Your task to perform on an android device: Search for "acer nitro" on walmart, select the first entry, and add it to the cart. Image 0: 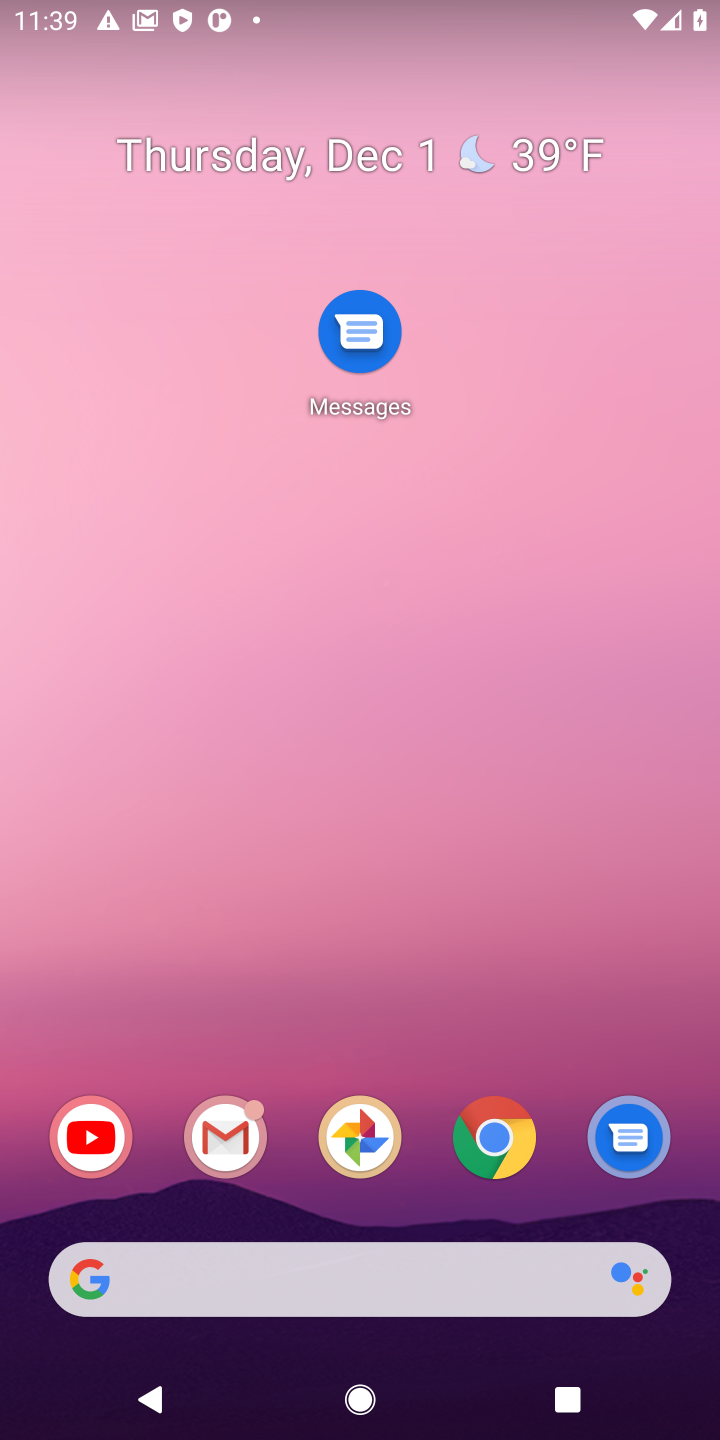
Step 0: drag from (258, 863) to (305, 542)
Your task to perform on an android device: Search for "acer nitro" on walmart, select the first entry, and add it to the cart. Image 1: 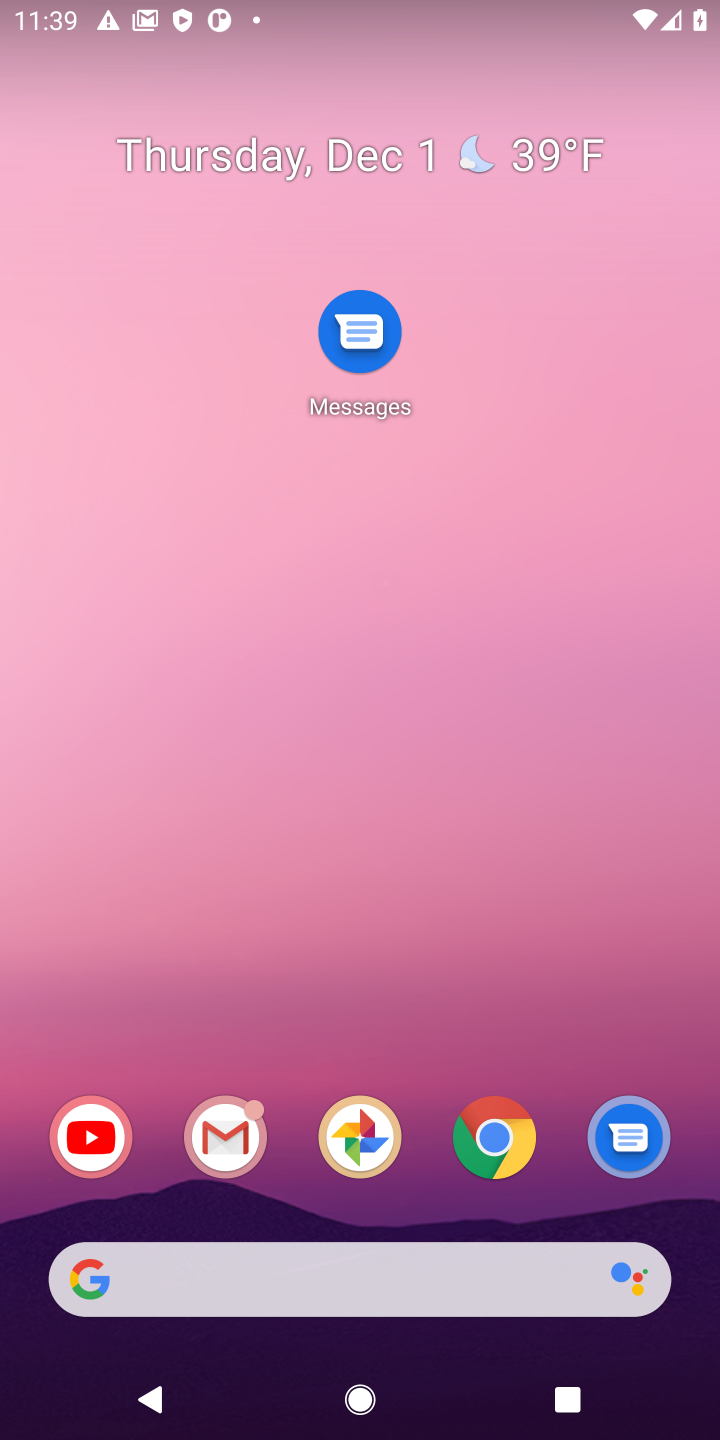
Step 1: drag from (392, 1133) to (392, 208)
Your task to perform on an android device: Search for "acer nitro" on walmart, select the first entry, and add it to the cart. Image 2: 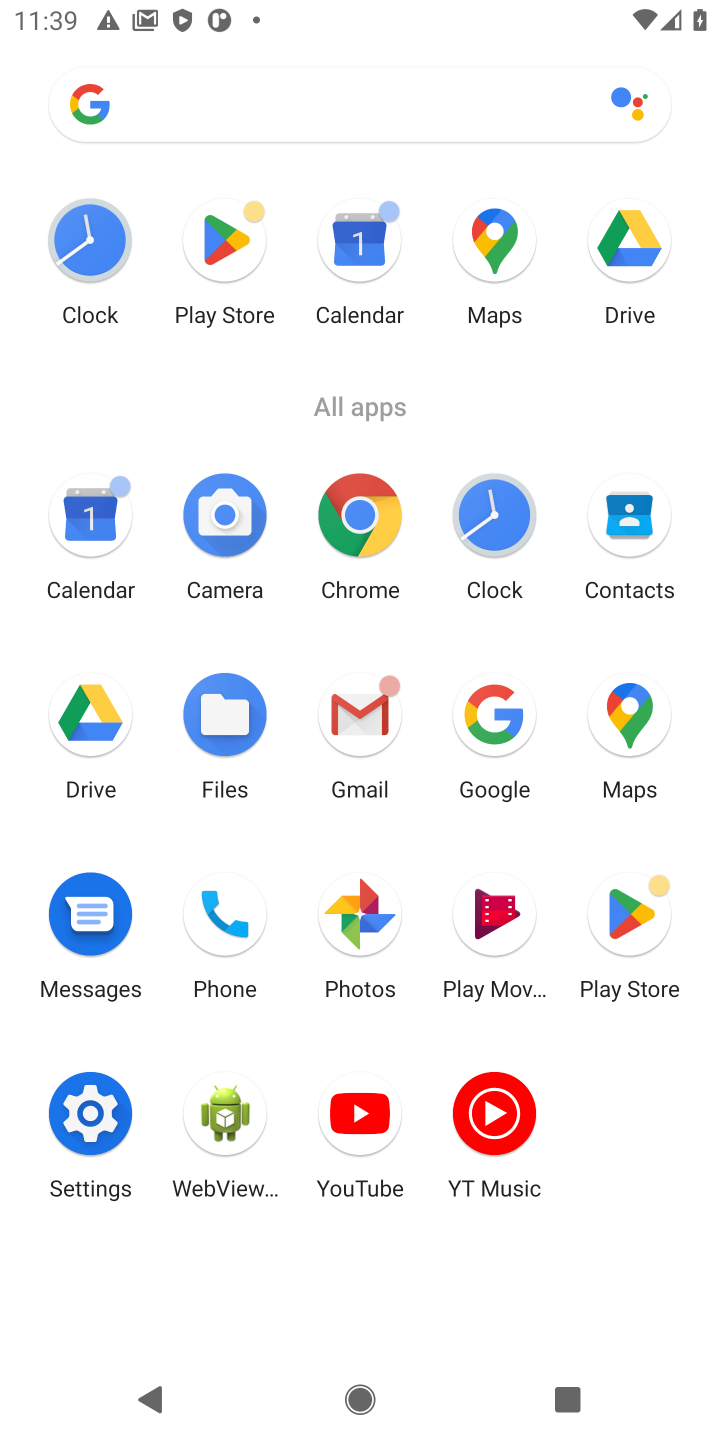
Step 2: click (498, 711)
Your task to perform on an android device: Search for "acer nitro" on walmart, select the first entry, and add it to the cart. Image 3: 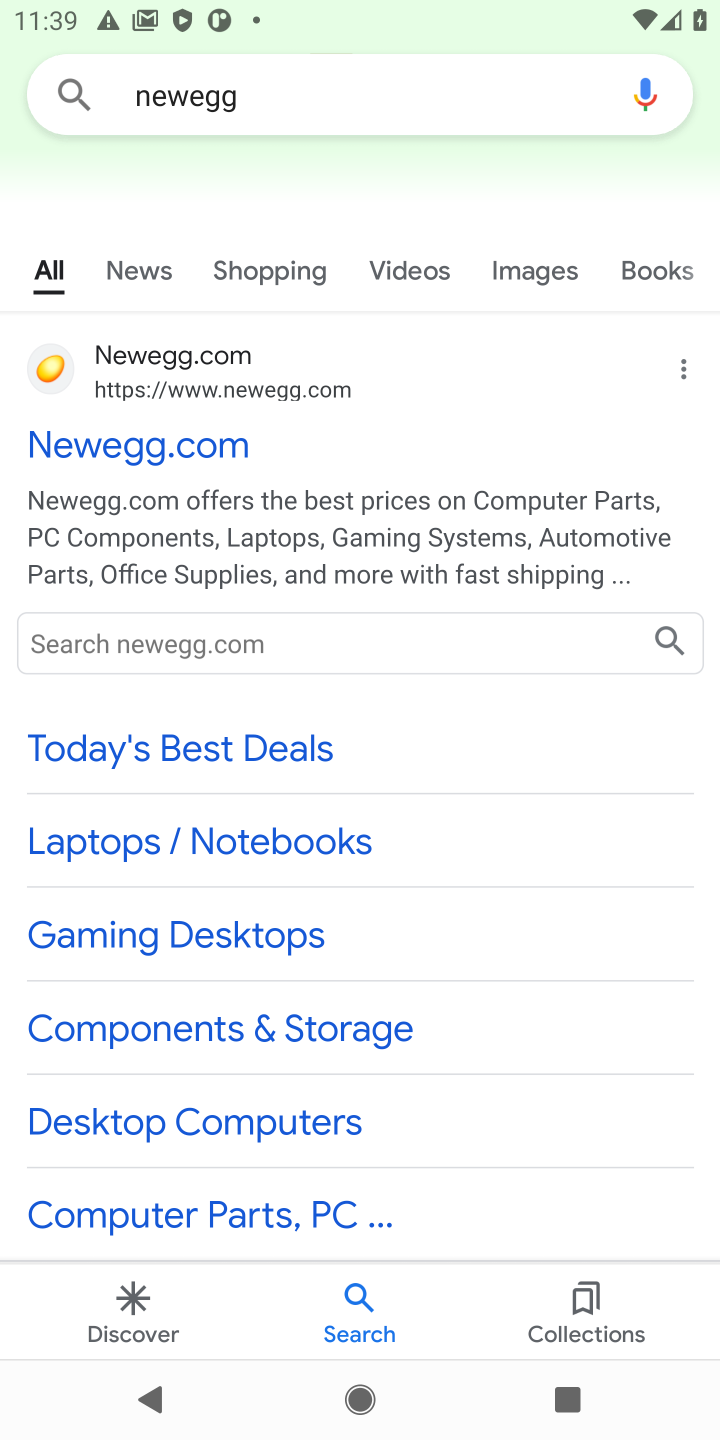
Step 3: click (242, 85)
Your task to perform on an android device: Search for "acer nitro" on walmart, select the first entry, and add it to the cart. Image 4: 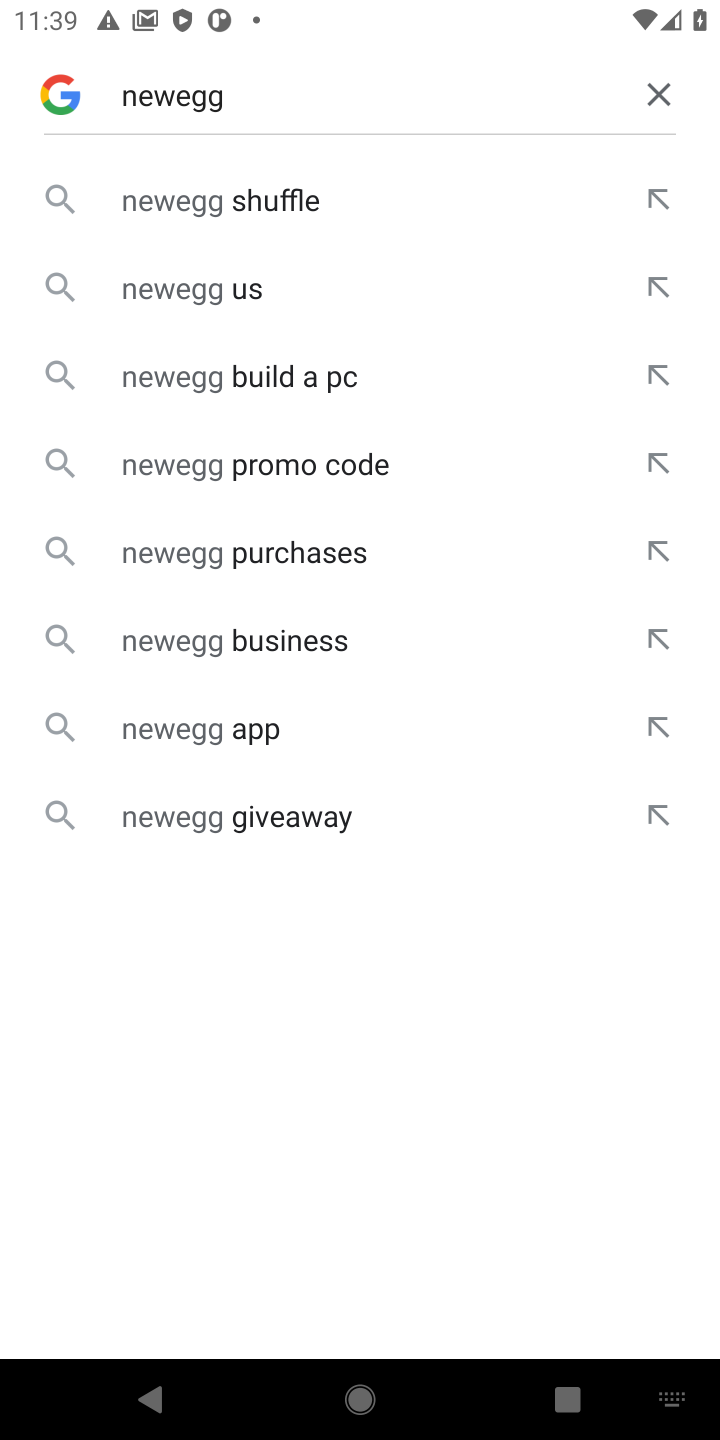
Step 4: click (666, 88)
Your task to perform on an android device: Search for "acer nitro" on walmart, select the first entry, and add it to the cart. Image 5: 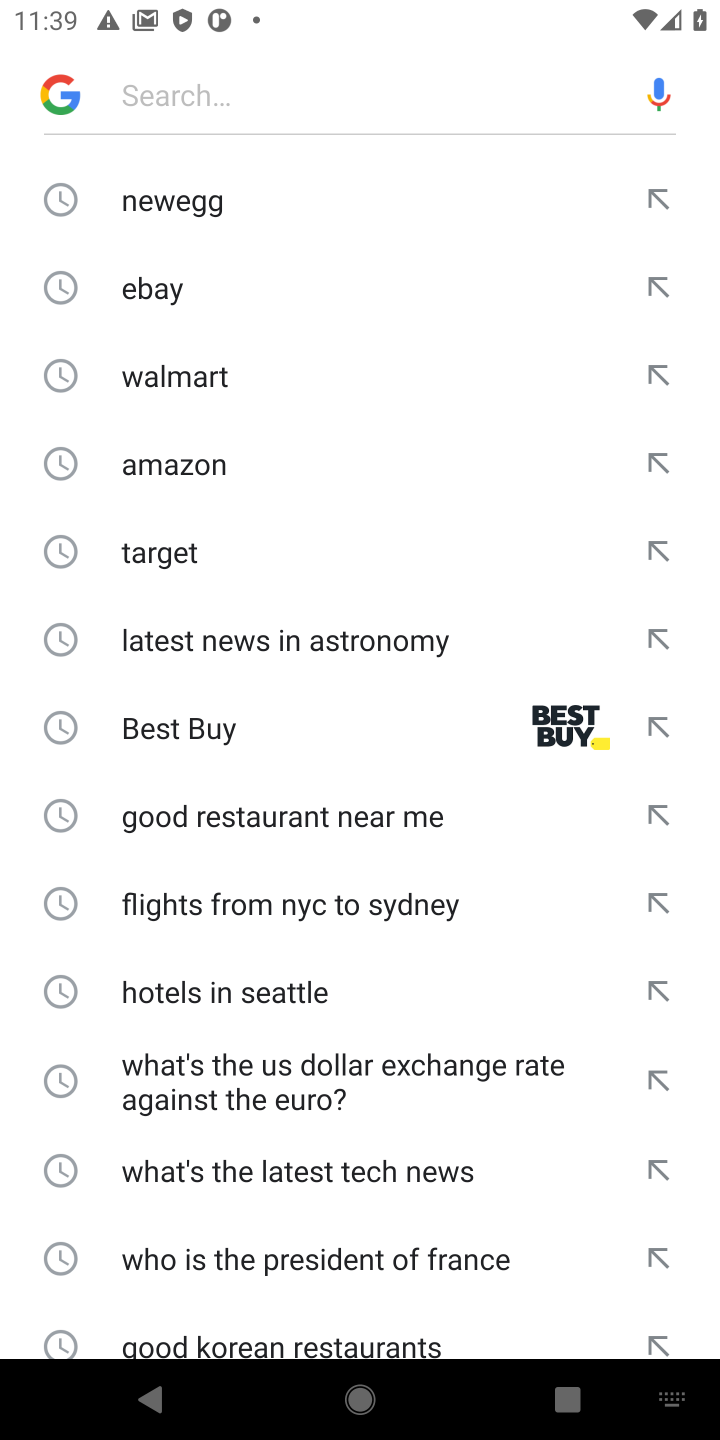
Step 5: click (183, 384)
Your task to perform on an android device: Search for "acer nitro" on walmart, select the first entry, and add it to the cart. Image 6: 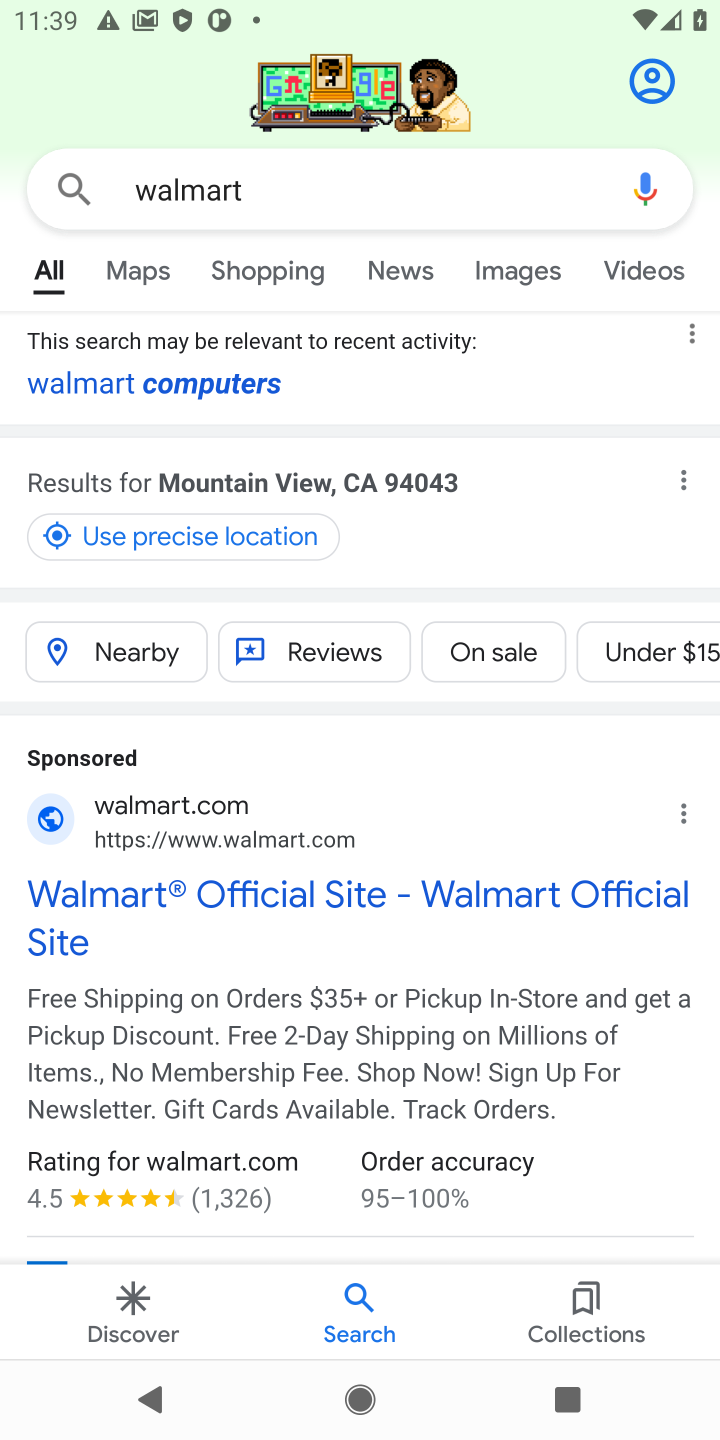
Step 6: click (163, 889)
Your task to perform on an android device: Search for "acer nitro" on walmart, select the first entry, and add it to the cart. Image 7: 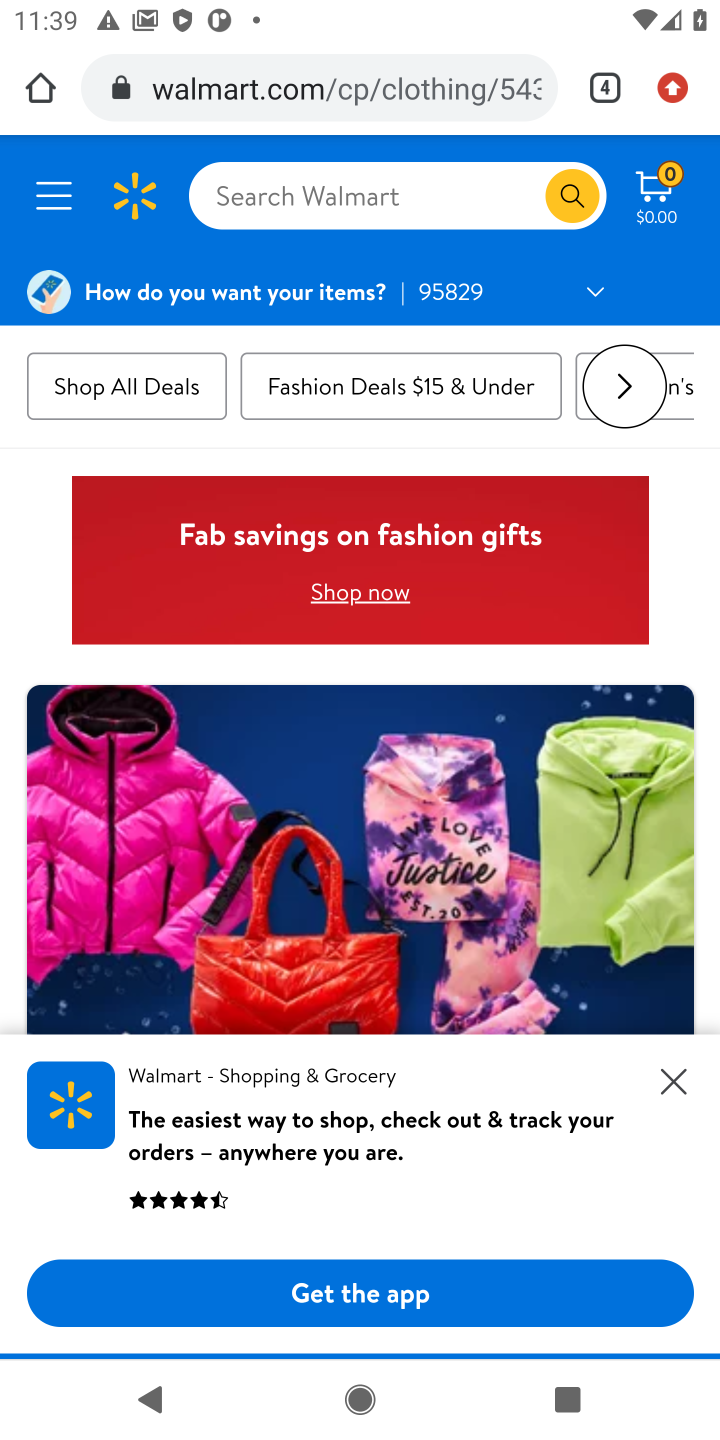
Step 7: click (325, 206)
Your task to perform on an android device: Search for "acer nitro" on walmart, select the first entry, and add it to the cart. Image 8: 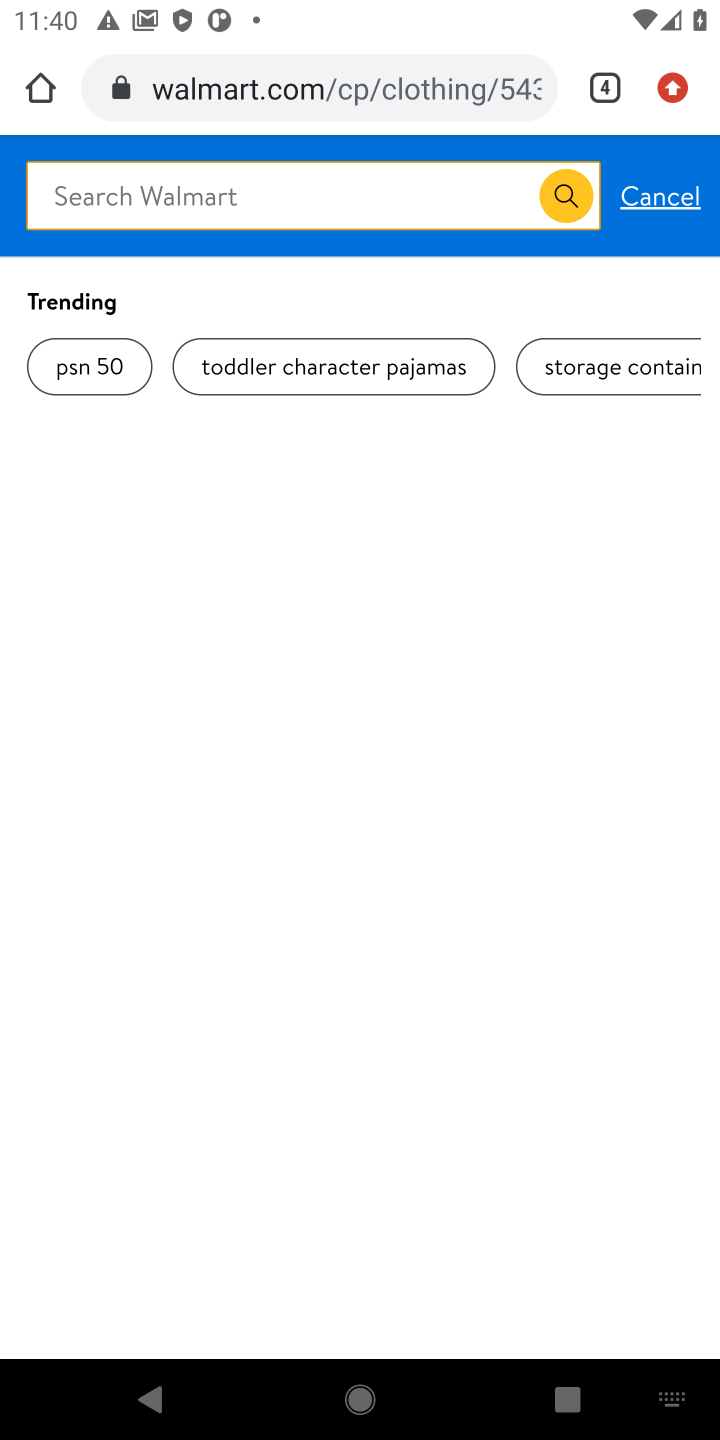
Step 8: type "acer nitro"
Your task to perform on an android device: Search for "acer nitro" on walmart, select the first entry, and add it to the cart. Image 9: 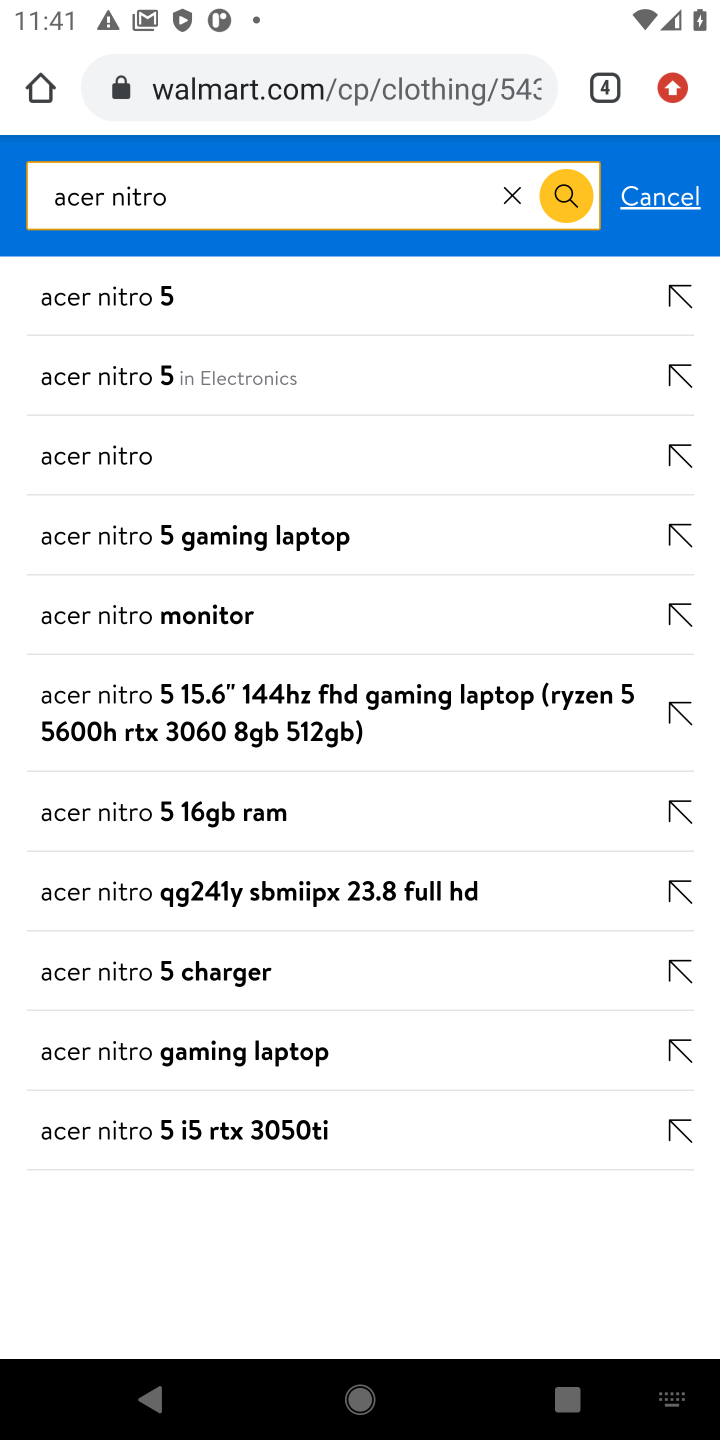
Step 9: click (146, 305)
Your task to perform on an android device: Search for "acer nitro" on walmart, select the first entry, and add it to the cart. Image 10: 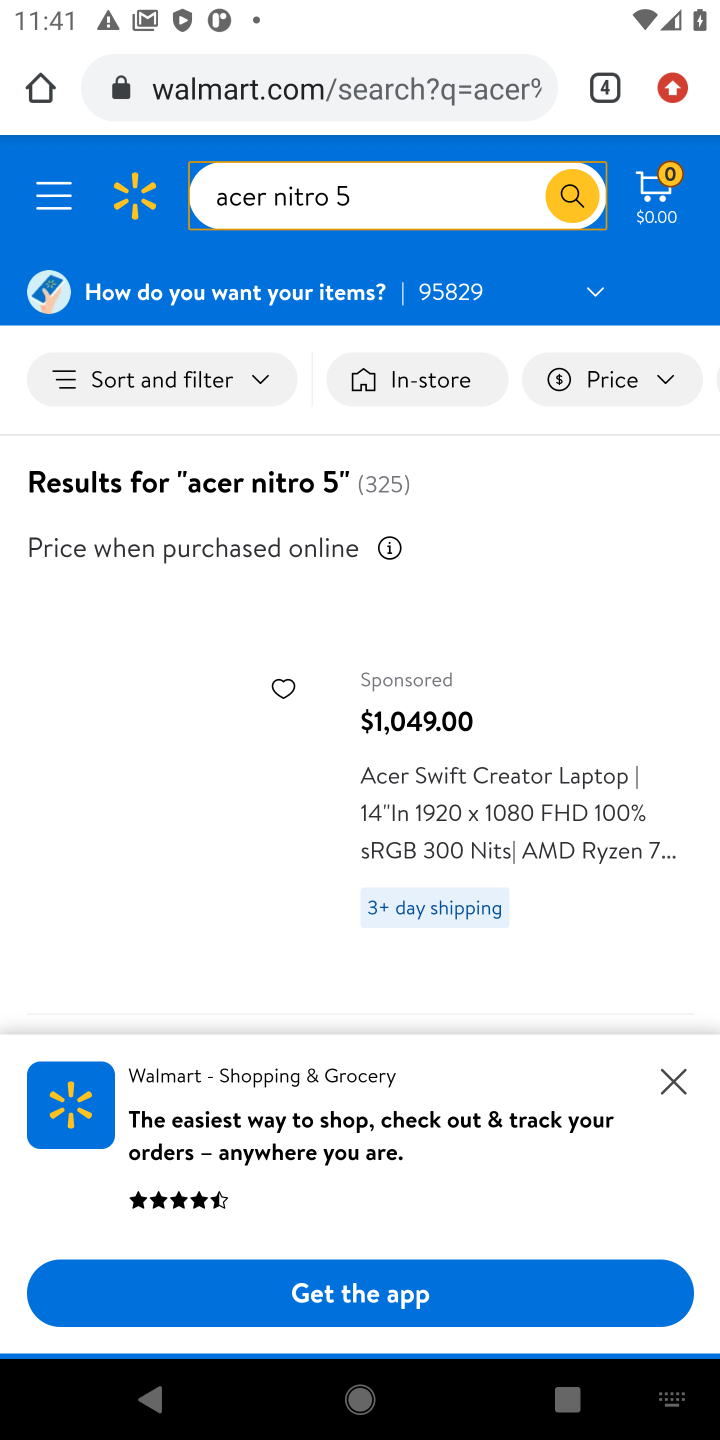
Step 10: click (670, 1083)
Your task to perform on an android device: Search for "acer nitro" on walmart, select the first entry, and add it to the cart. Image 11: 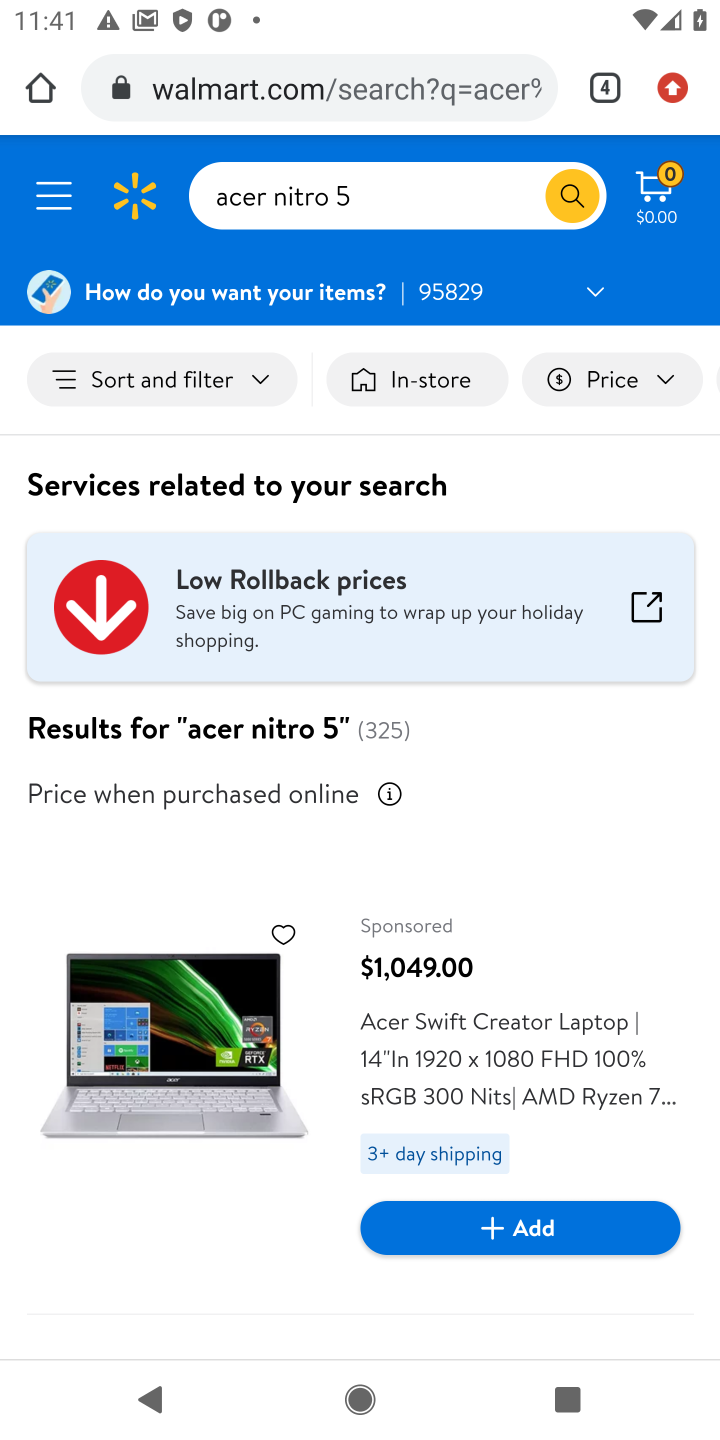
Step 11: click (551, 1230)
Your task to perform on an android device: Search for "acer nitro" on walmart, select the first entry, and add it to the cart. Image 12: 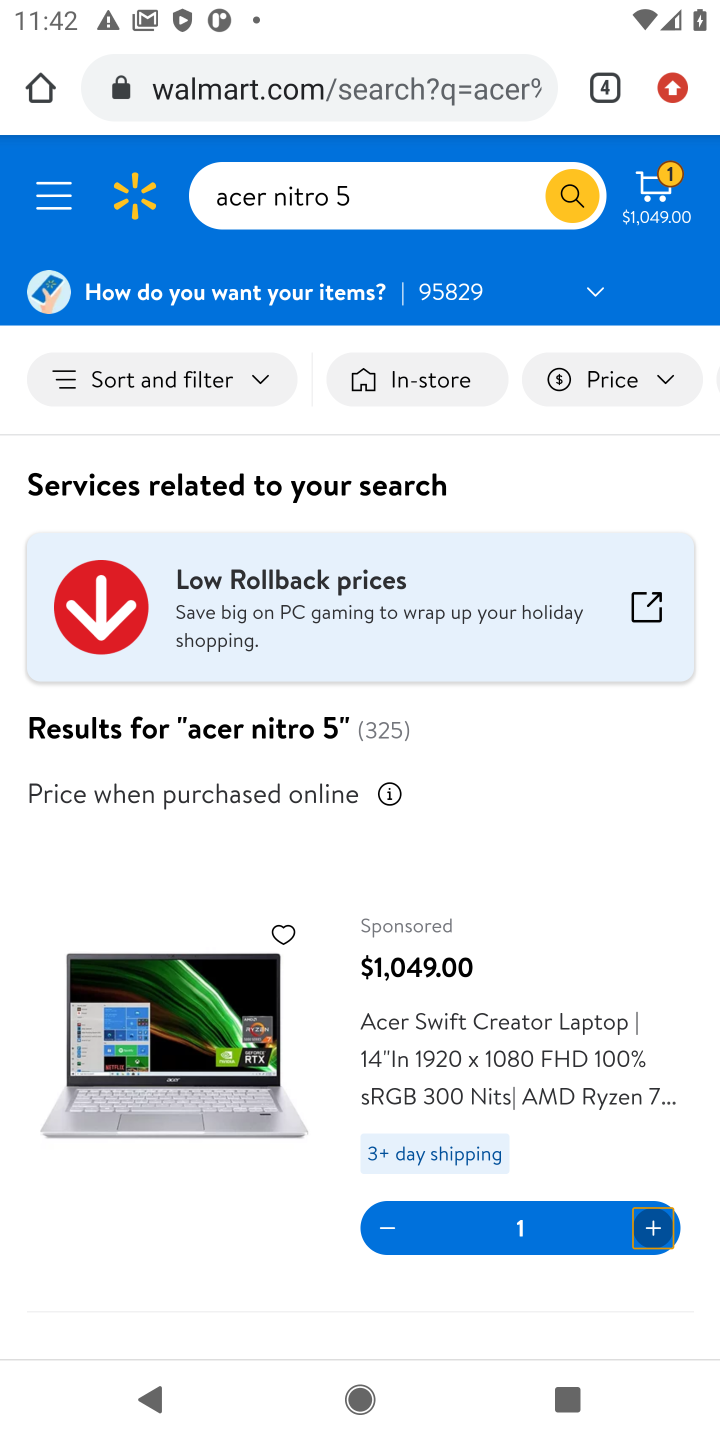
Step 12: task complete